Your task to perform on an android device: see tabs open on other devices in the chrome app Image 0: 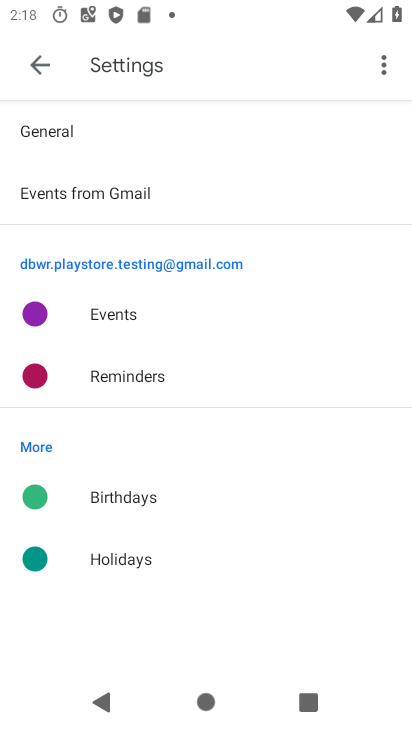
Step 0: click (41, 567)
Your task to perform on an android device: see tabs open on other devices in the chrome app Image 1: 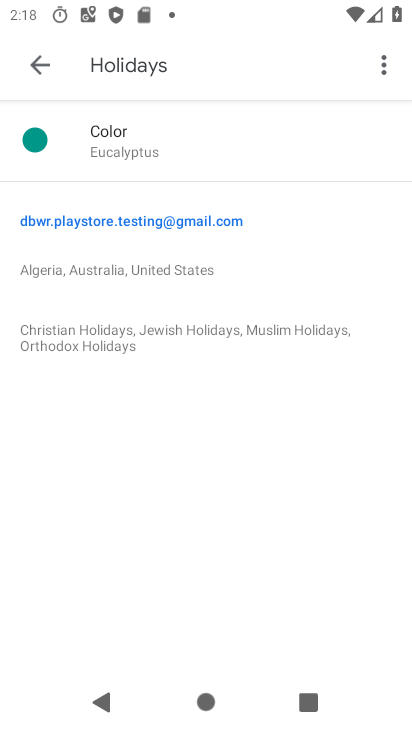
Step 1: drag from (197, 631) to (248, 384)
Your task to perform on an android device: see tabs open on other devices in the chrome app Image 2: 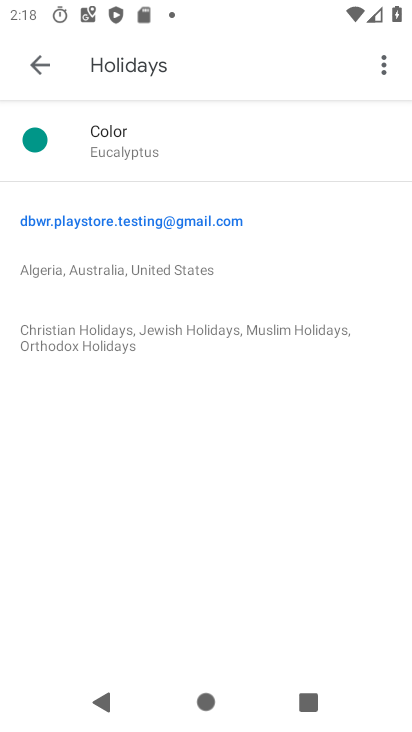
Step 2: drag from (246, 192) to (214, 603)
Your task to perform on an android device: see tabs open on other devices in the chrome app Image 3: 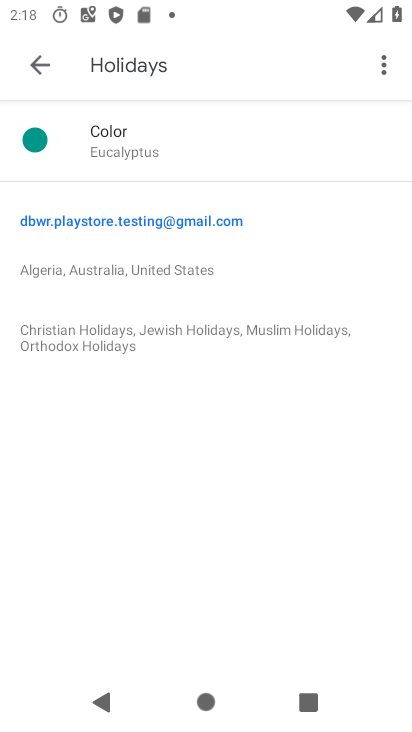
Step 3: drag from (200, 215) to (406, 649)
Your task to perform on an android device: see tabs open on other devices in the chrome app Image 4: 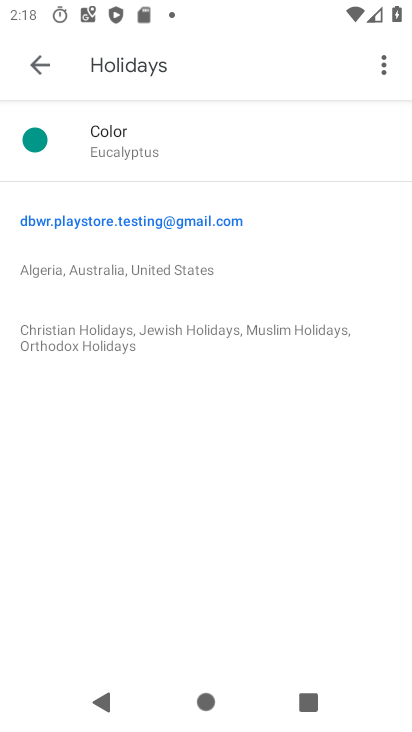
Step 4: press home button
Your task to perform on an android device: see tabs open on other devices in the chrome app Image 5: 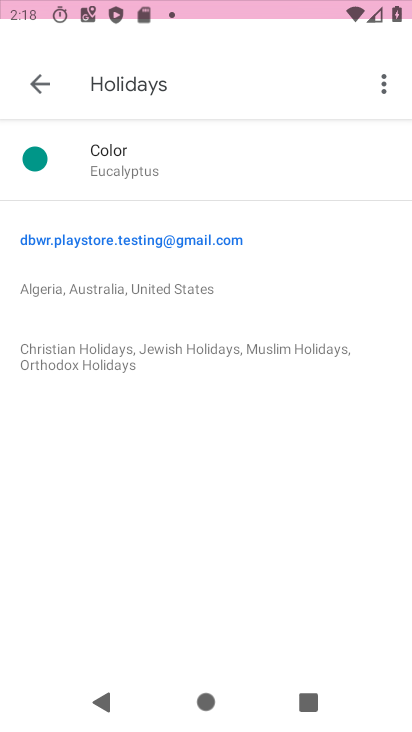
Step 5: drag from (242, 597) to (280, 68)
Your task to perform on an android device: see tabs open on other devices in the chrome app Image 6: 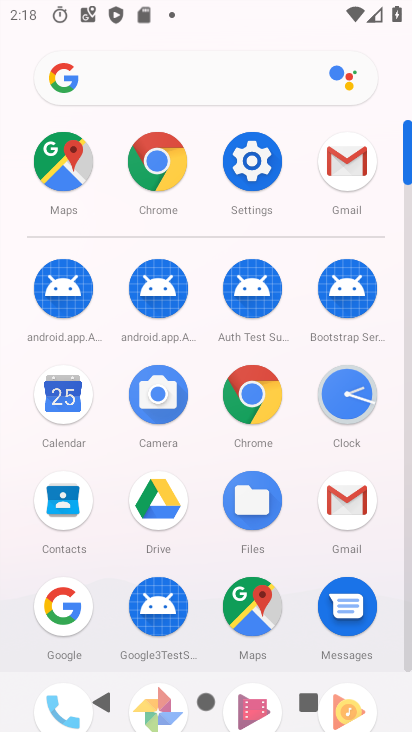
Step 6: click (257, 398)
Your task to perform on an android device: see tabs open on other devices in the chrome app Image 7: 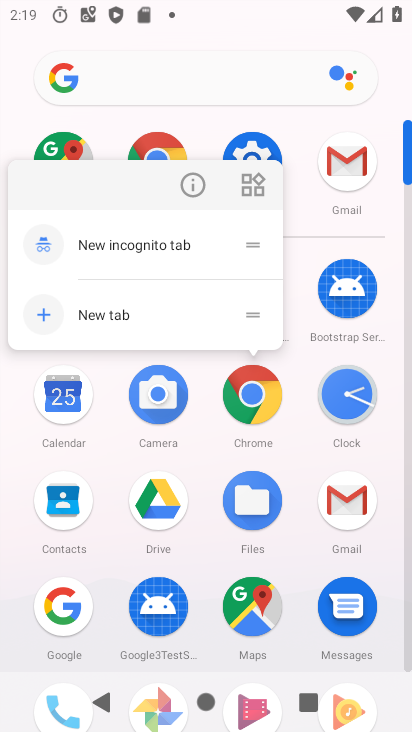
Step 7: click (193, 182)
Your task to perform on an android device: see tabs open on other devices in the chrome app Image 8: 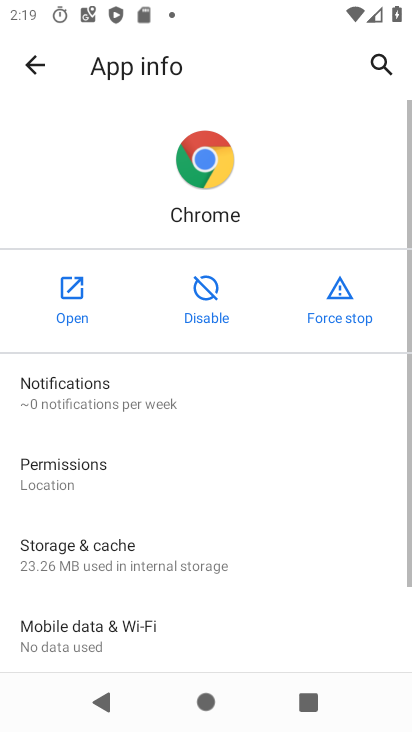
Step 8: click (65, 312)
Your task to perform on an android device: see tabs open on other devices in the chrome app Image 9: 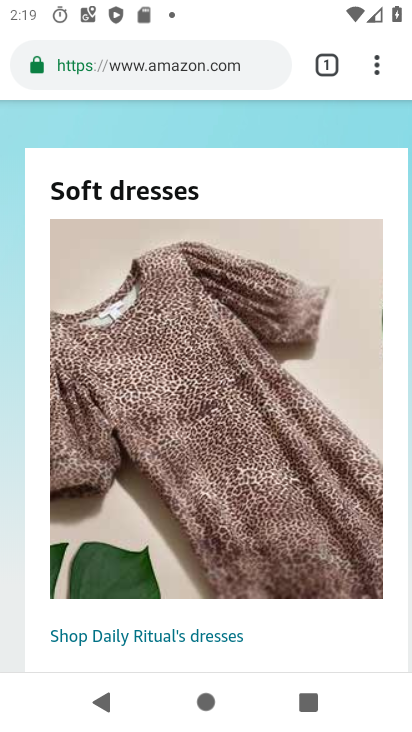
Step 9: click (373, 71)
Your task to perform on an android device: see tabs open on other devices in the chrome app Image 10: 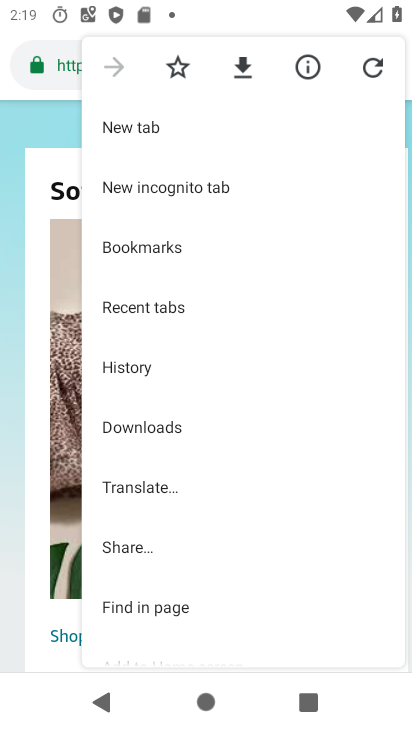
Step 10: click (138, 312)
Your task to perform on an android device: see tabs open on other devices in the chrome app Image 11: 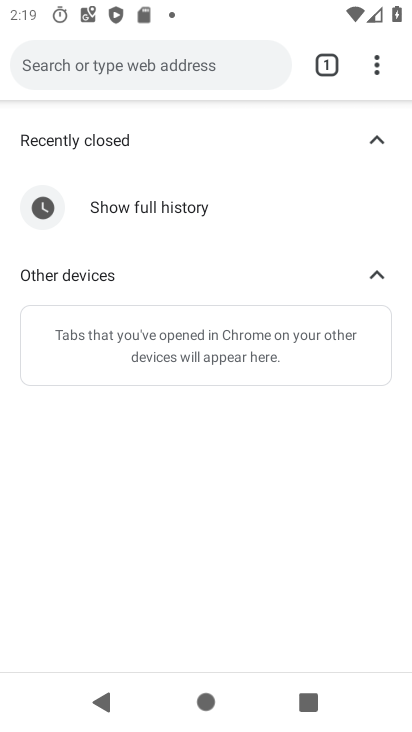
Step 11: task complete